Your task to perform on an android device: add a contact in the contacts app Image 0: 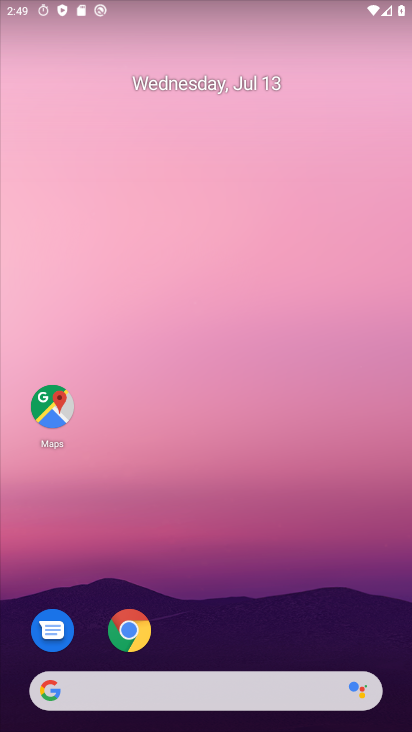
Step 0: drag from (68, 622) to (376, 24)
Your task to perform on an android device: add a contact in the contacts app Image 1: 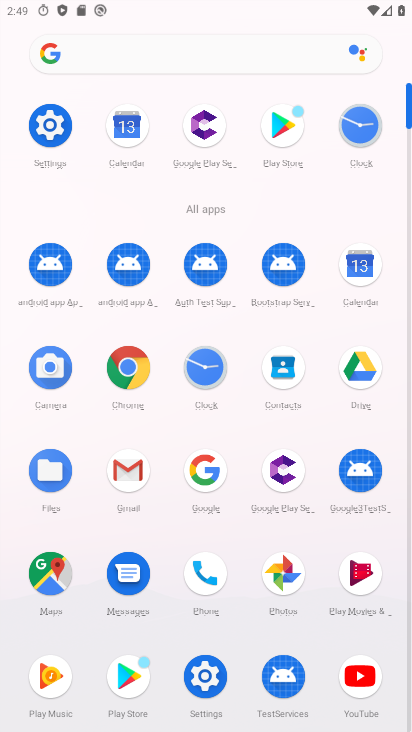
Step 1: click (295, 364)
Your task to perform on an android device: add a contact in the contacts app Image 2: 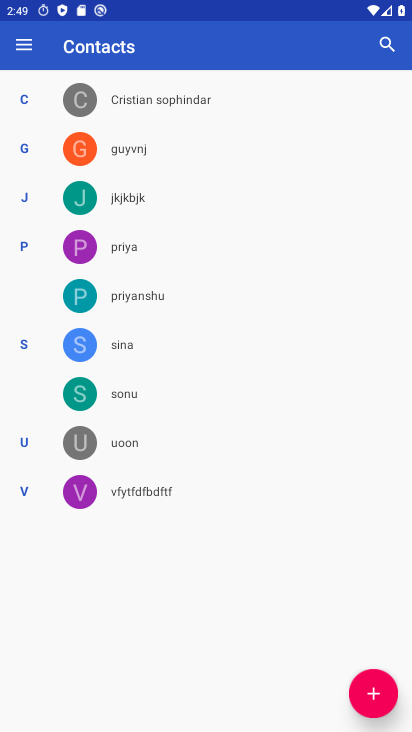
Step 2: click (372, 693)
Your task to perform on an android device: add a contact in the contacts app Image 3: 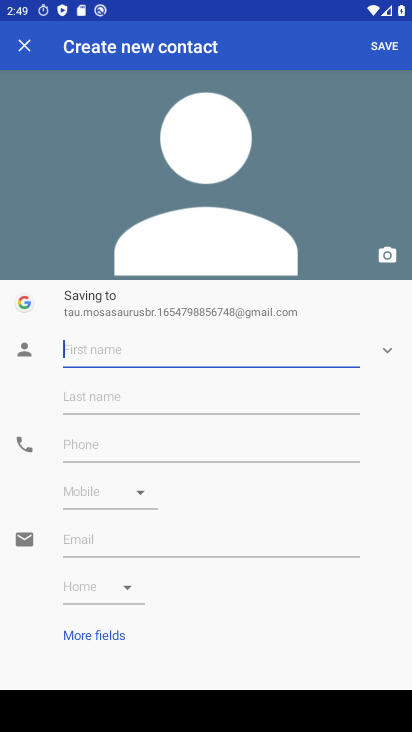
Step 3: type "cddeadfc"
Your task to perform on an android device: add a contact in the contacts app Image 4: 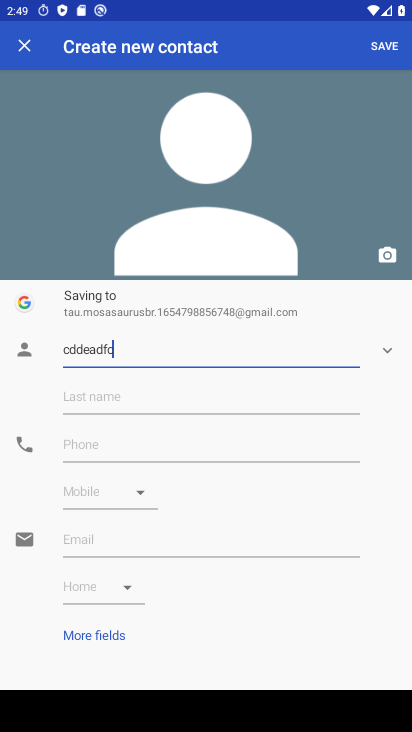
Step 4: type ""
Your task to perform on an android device: add a contact in the contacts app Image 5: 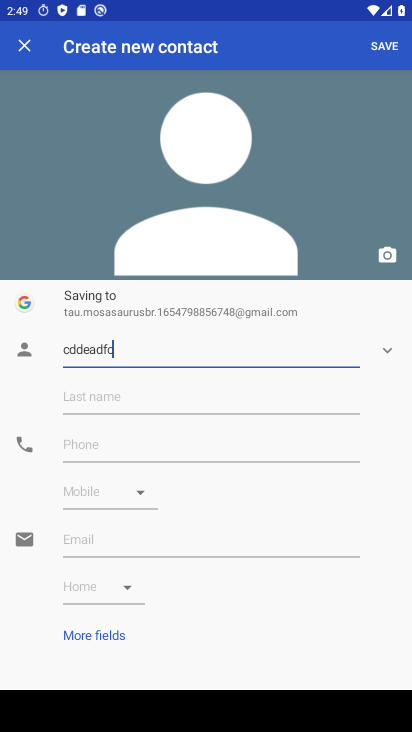
Step 5: click (374, 43)
Your task to perform on an android device: add a contact in the contacts app Image 6: 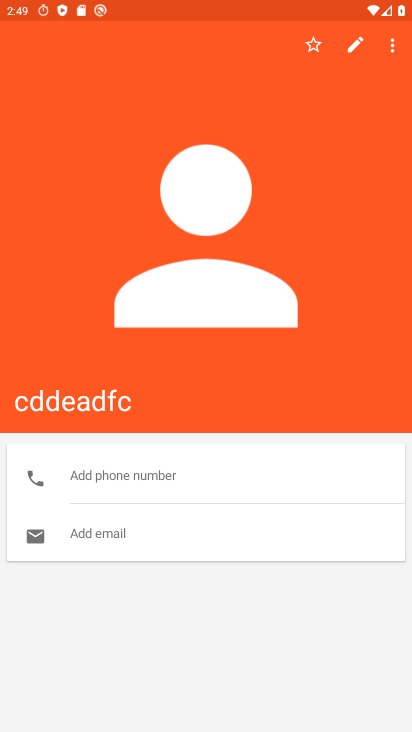
Step 6: task complete